Your task to perform on an android device: change the clock display to digital Image 0: 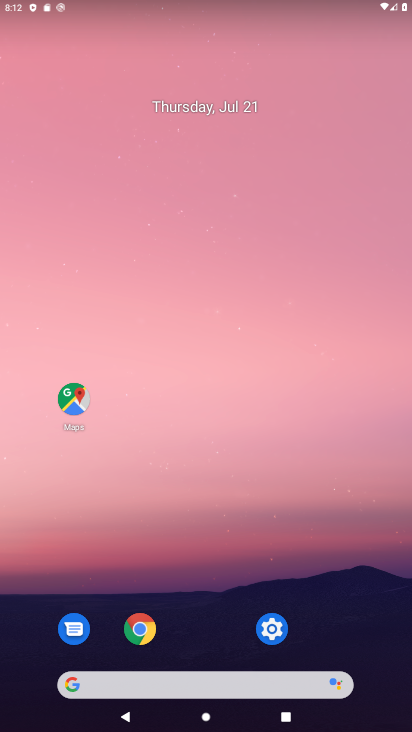
Step 0: drag from (260, 698) to (246, 253)
Your task to perform on an android device: change the clock display to digital Image 1: 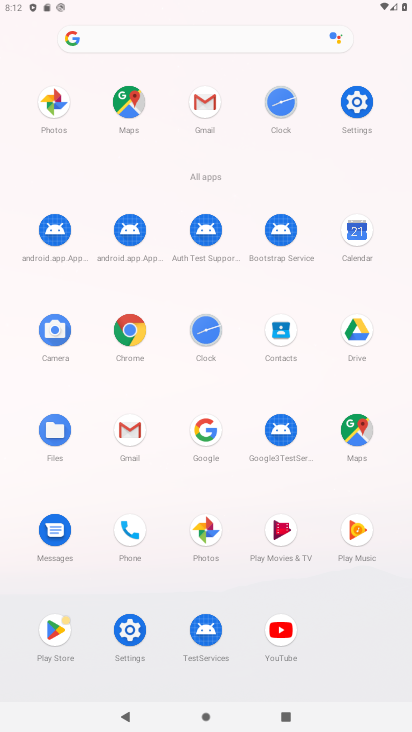
Step 1: click (196, 326)
Your task to perform on an android device: change the clock display to digital Image 2: 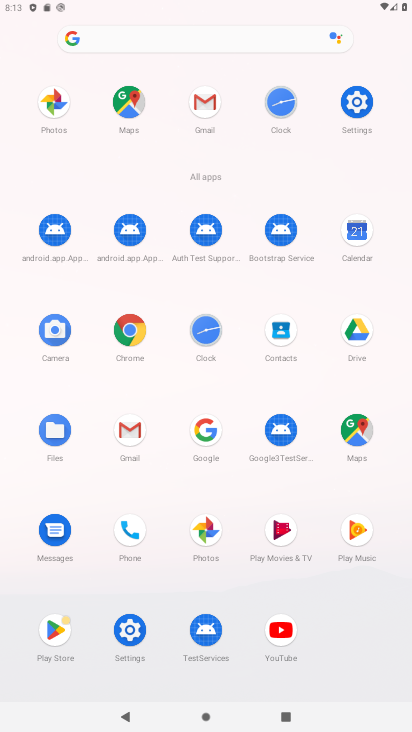
Step 2: click (280, 112)
Your task to perform on an android device: change the clock display to digital Image 3: 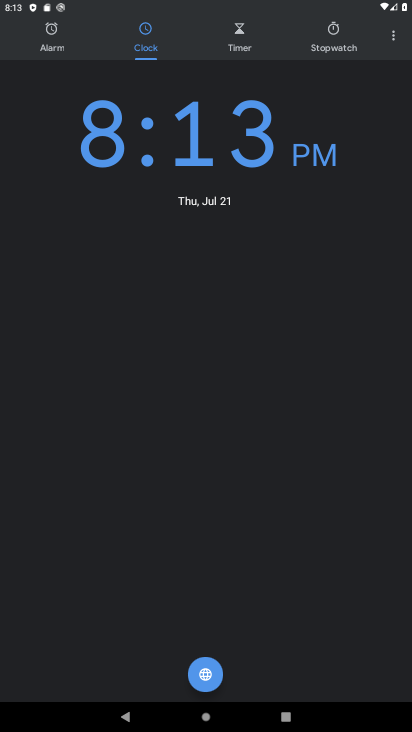
Step 3: click (386, 43)
Your task to perform on an android device: change the clock display to digital Image 4: 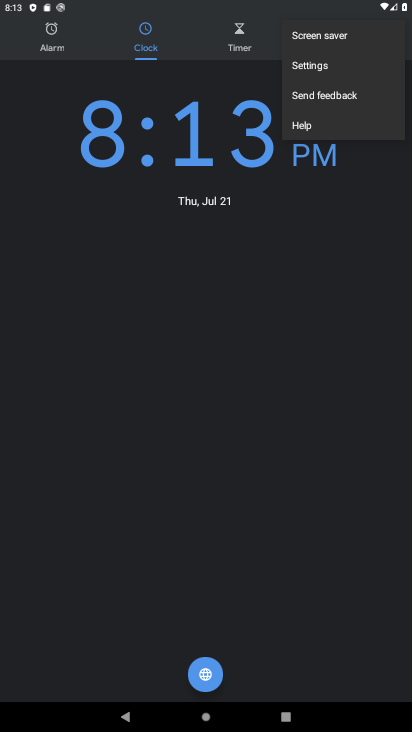
Step 4: click (332, 73)
Your task to perform on an android device: change the clock display to digital Image 5: 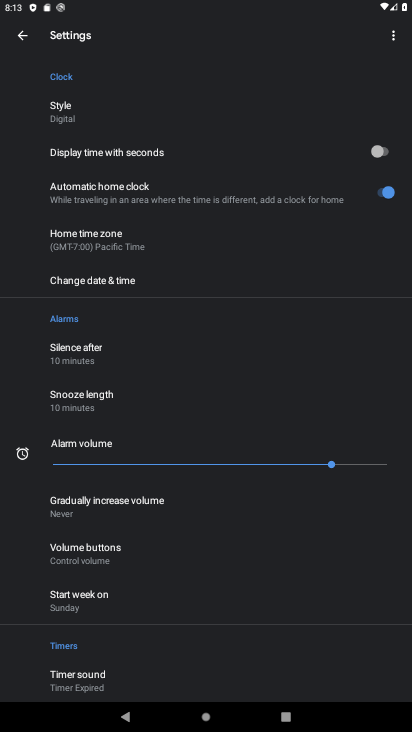
Step 5: click (102, 120)
Your task to perform on an android device: change the clock display to digital Image 6: 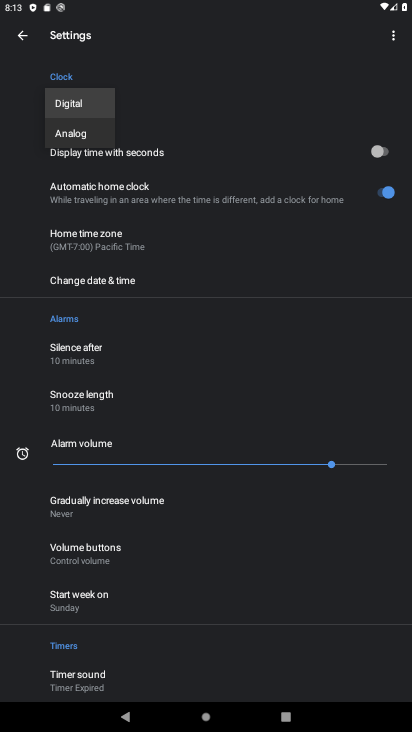
Step 6: click (92, 111)
Your task to perform on an android device: change the clock display to digital Image 7: 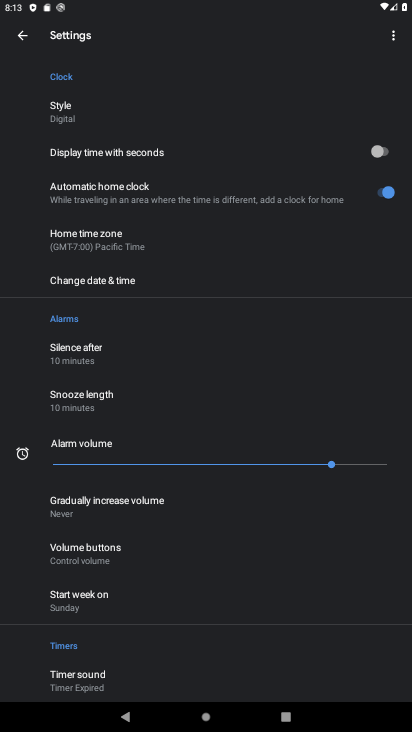
Step 7: task complete